Your task to perform on an android device: delete a single message in the gmail app Image 0: 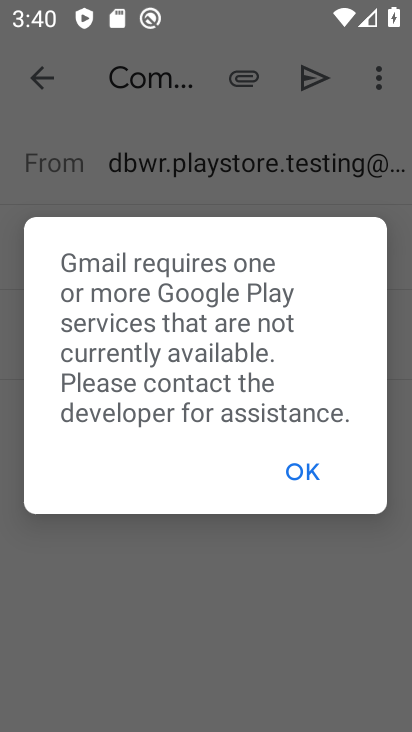
Step 0: click (313, 477)
Your task to perform on an android device: delete a single message in the gmail app Image 1: 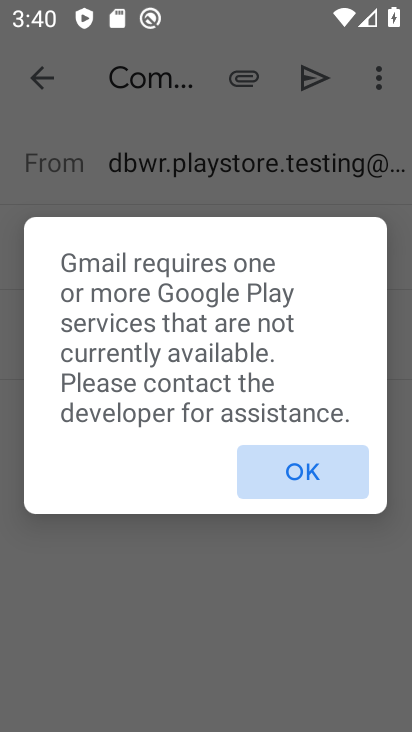
Step 1: click (294, 472)
Your task to perform on an android device: delete a single message in the gmail app Image 2: 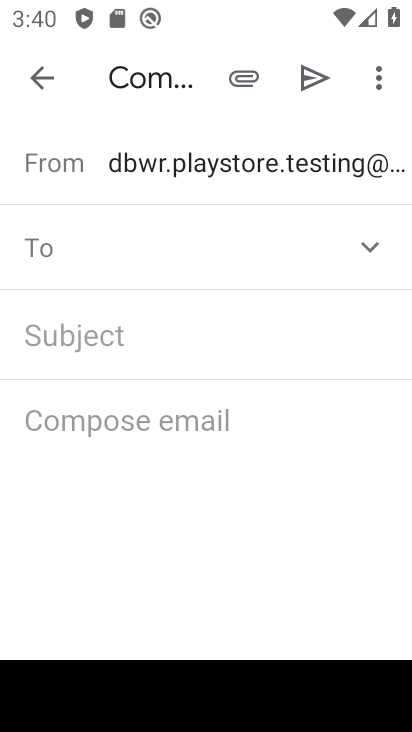
Step 2: click (51, 77)
Your task to perform on an android device: delete a single message in the gmail app Image 3: 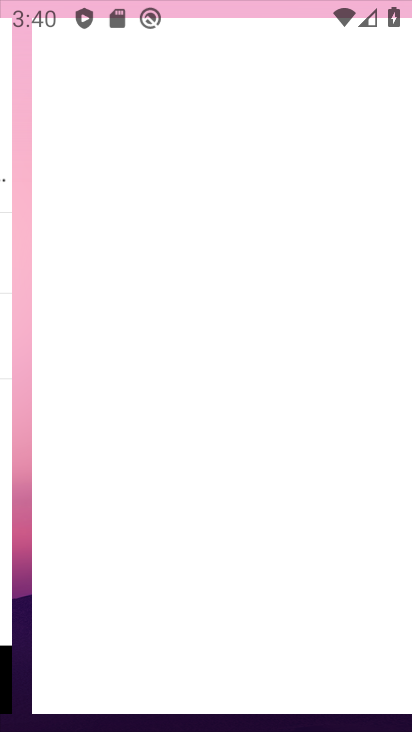
Step 3: click (43, 77)
Your task to perform on an android device: delete a single message in the gmail app Image 4: 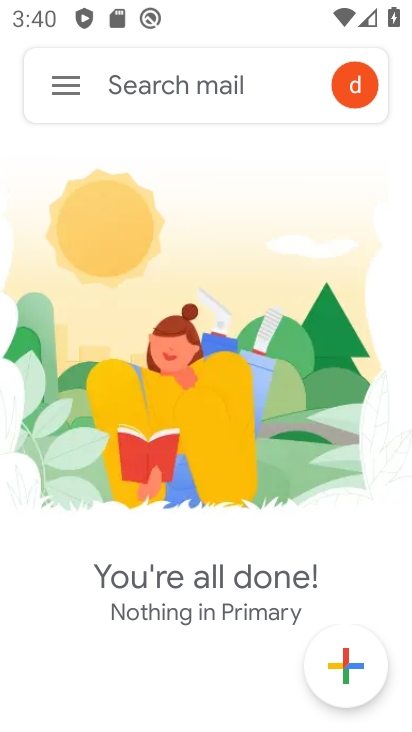
Step 4: press back button
Your task to perform on an android device: delete a single message in the gmail app Image 5: 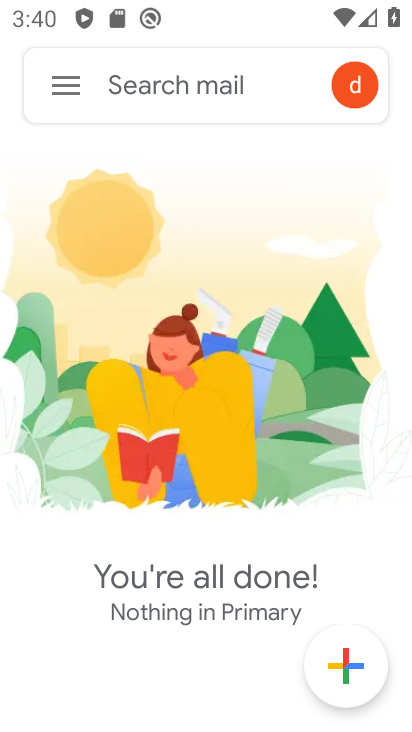
Step 5: press back button
Your task to perform on an android device: delete a single message in the gmail app Image 6: 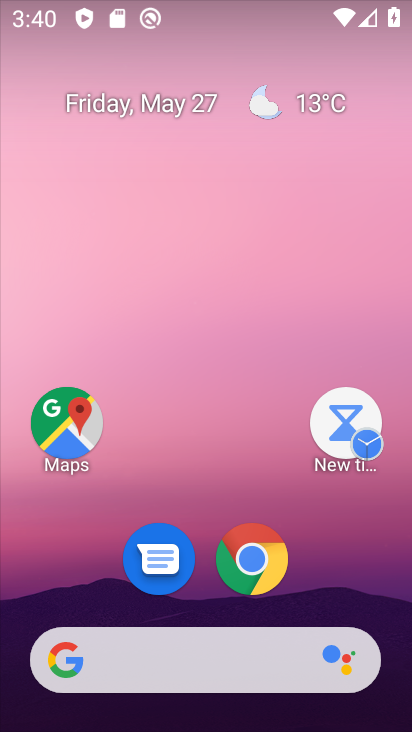
Step 6: drag from (262, 626) to (161, 125)
Your task to perform on an android device: delete a single message in the gmail app Image 7: 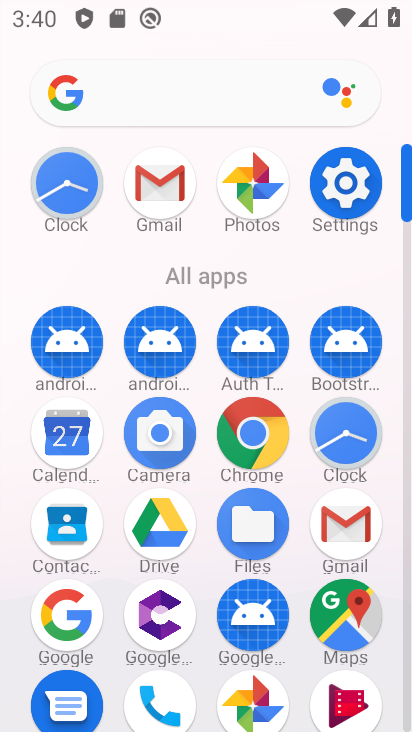
Step 7: click (328, 521)
Your task to perform on an android device: delete a single message in the gmail app Image 8: 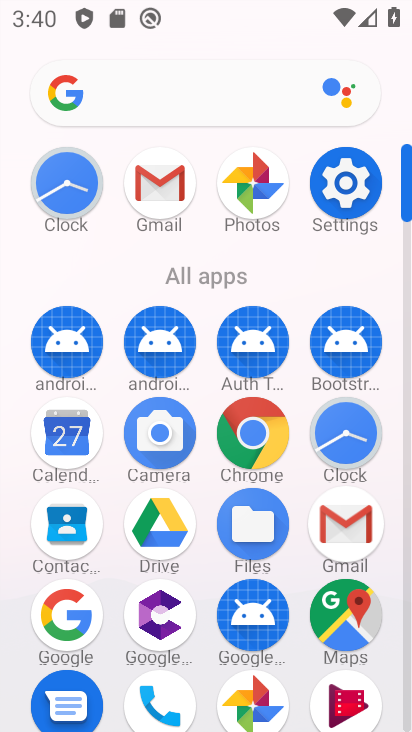
Step 8: click (335, 518)
Your task to perform on an android device: delete a single message in the gmail app Image 9: 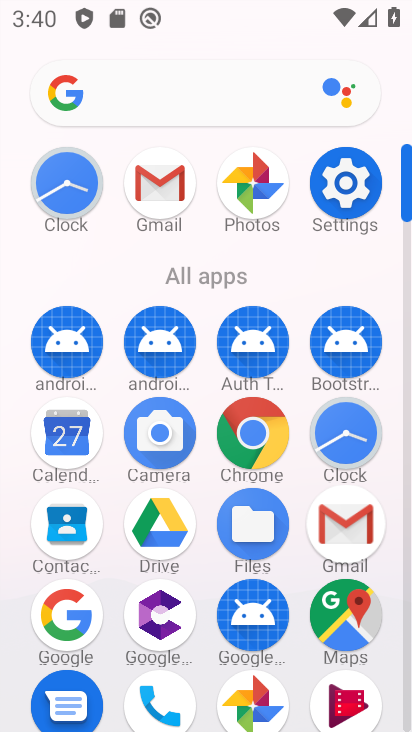
Step 9: click (338, 518)
Your task to perform on an android device: delete a single message in the gmail app Image 10: 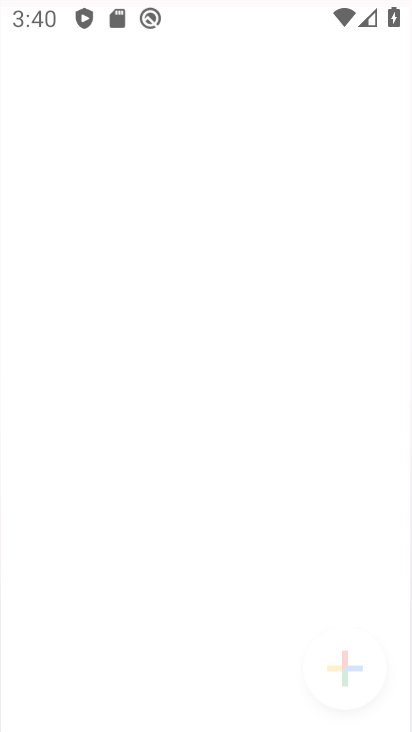
Step 10: click (338, 518)
Your task to perform on an android device: delete a single message in the gmail app Image 11: 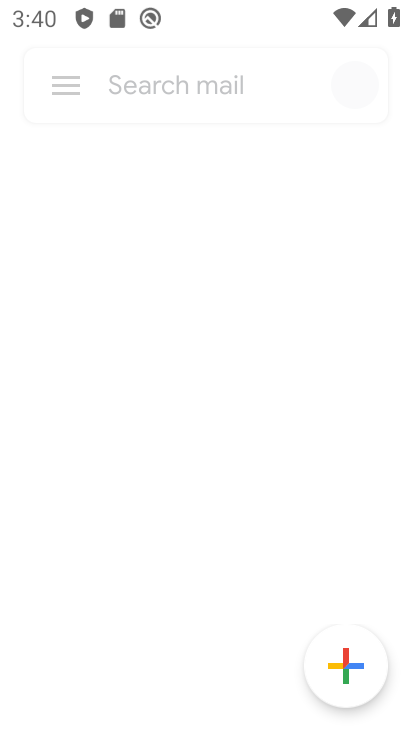
Step 11: click (338, 518)
Your task to perform on an android device: delete a single message in the gmail app Image 12: 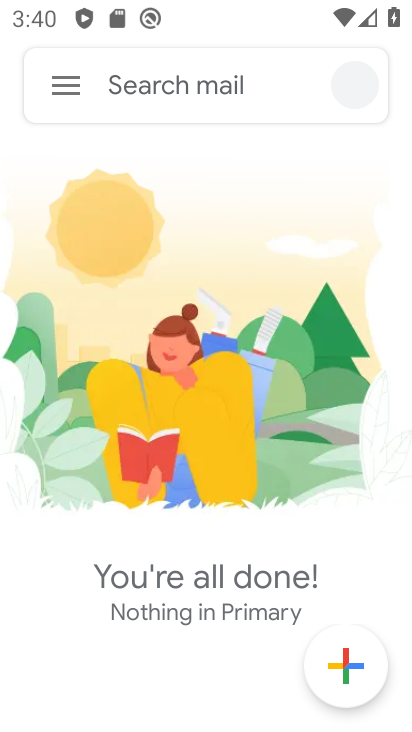
Step 12: click (338, 518)
Your task to perform on an android device: delete a single message in the gmail app Image 13: 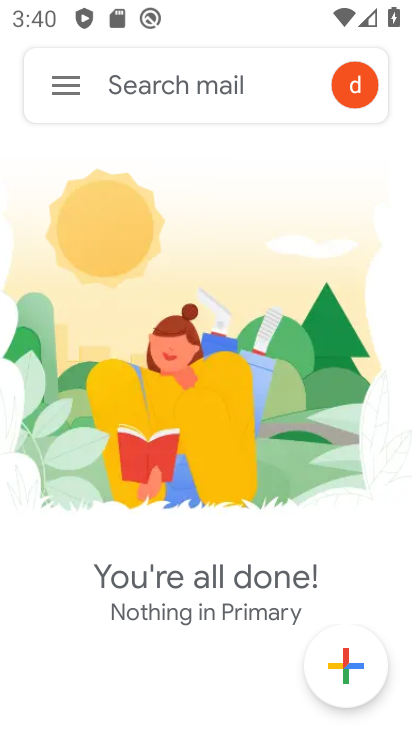
Step 13: click (51, 84)
Your task to perform on an android device: delete a single message in the gmail app Image 14: 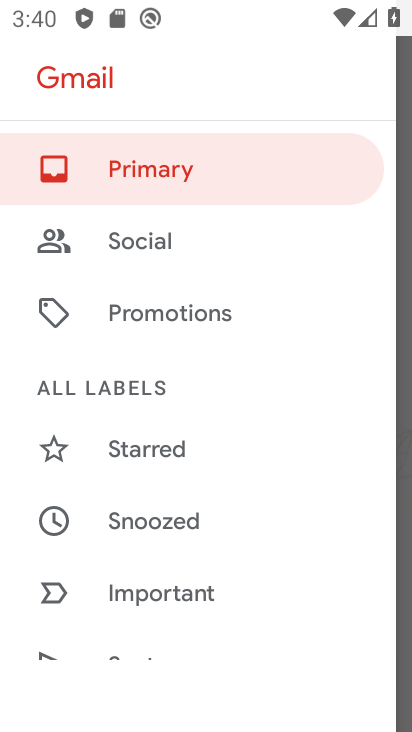
Step 14: drag from (167, 479) to (127, 138)
Your task to perform on an android device: delete a single message in the gmail app Image 15: 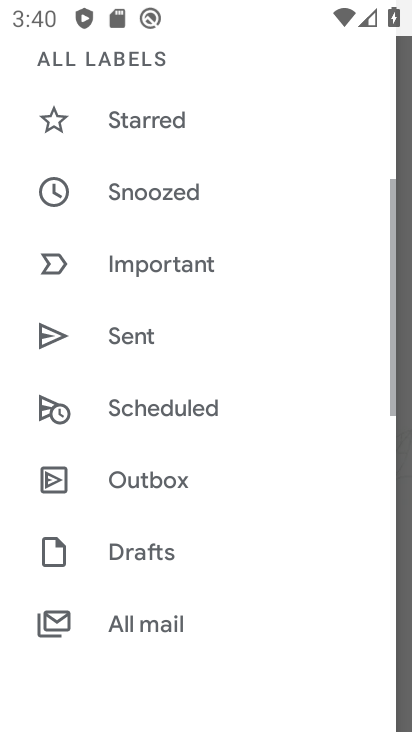
Step 15: drag from (186, 307) to (182, 99)
Your task to perform on an android device: delete a single message in the gmail app Image 16: 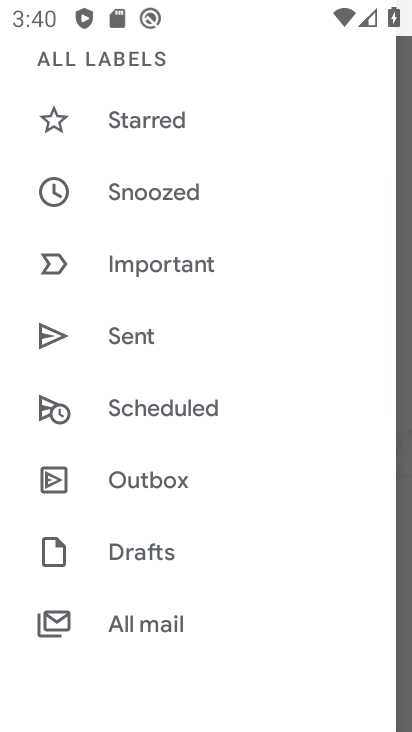
Step 16: click (135, 626)
Your task to perform on an android device: delete a single message in the gmail app Image 17: 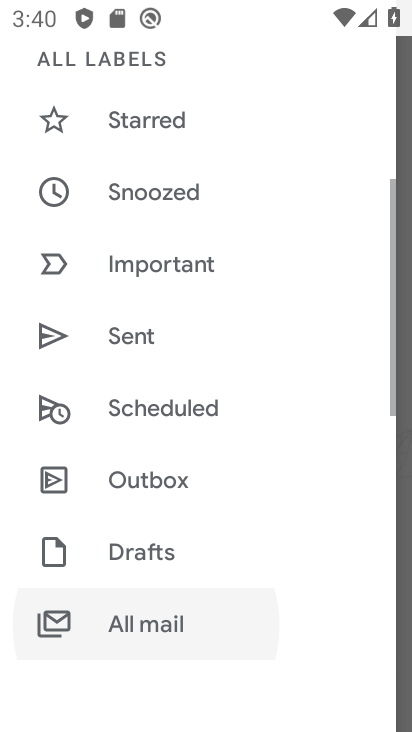
Step 17: click (135, 626)
Your task to perform on an android device: delete a single message in the gmail app Image 18: 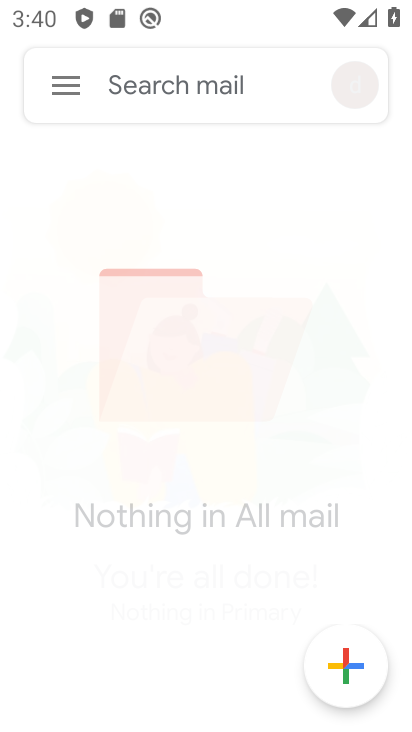
Step 18: click (135, 626)
Your task to perform on an android device: delete a single message in the gmail app Image 19: 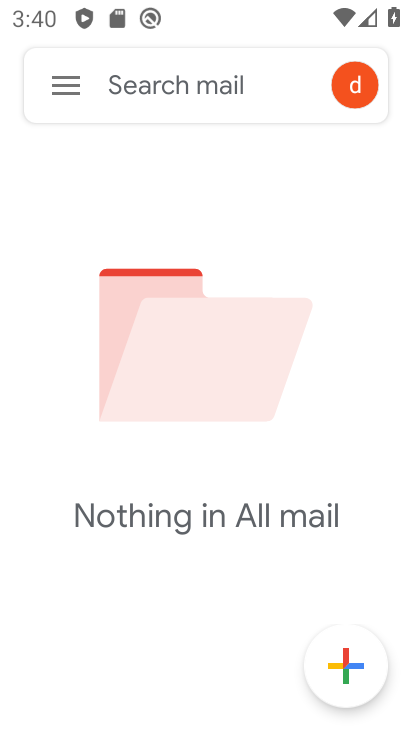
Step 19: click (135, 626)
Your task to perform on an android device: delete a single message in the gmail app Image 20: 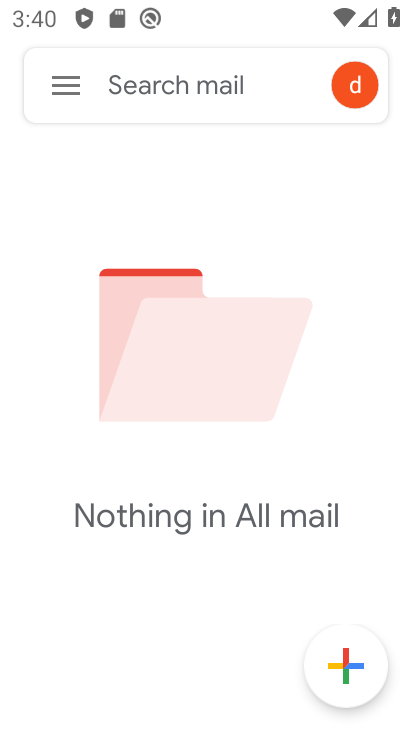
Step 20: task complete